Your task to perform on an android device: What's the weather today? Image 0: 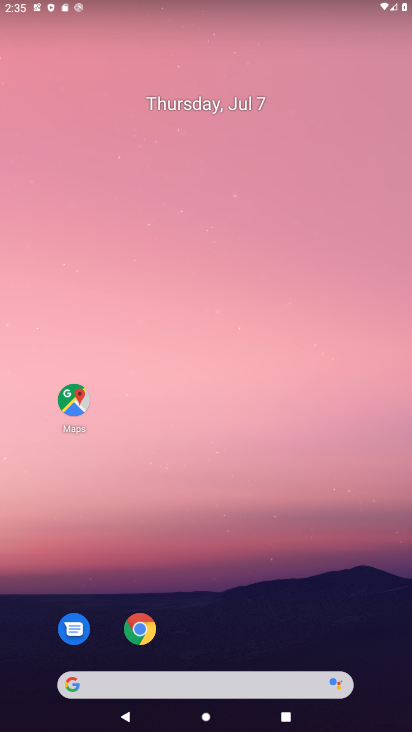
Step 0: click (143, 691)
Your task to perform on an android device: What's the weather today? Image 1: 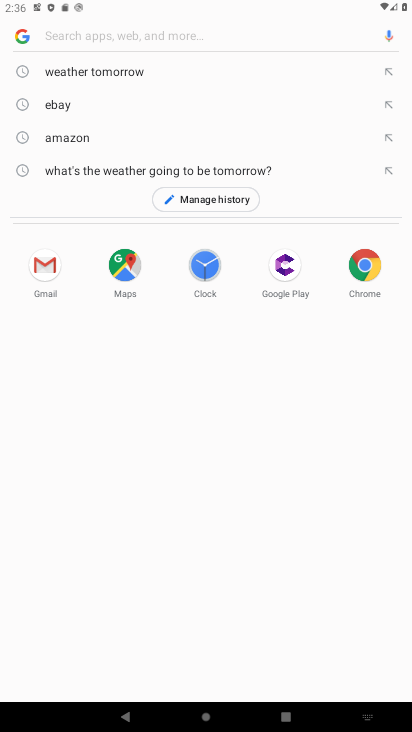
Step 1: click (135, 30)
Your task to perform on an android device: What's the weather today? Image 2: 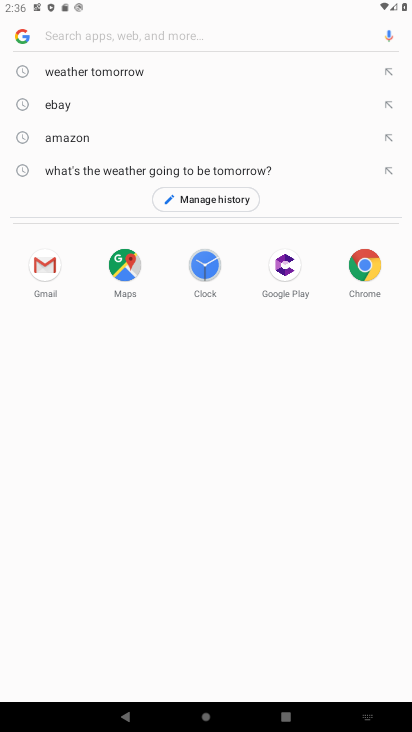
Step 2: type "weather"
Your task to perform on an android device: What's the weather today? Image 3: 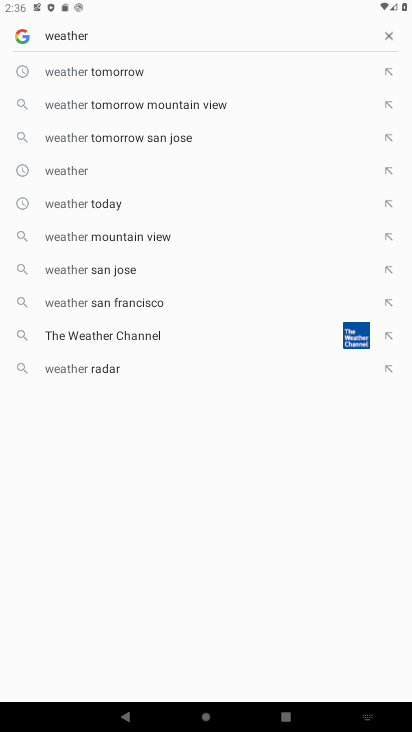
Step 3: click (71, 162)
Your task to perform on an android device: What's the weather today? Image 4: 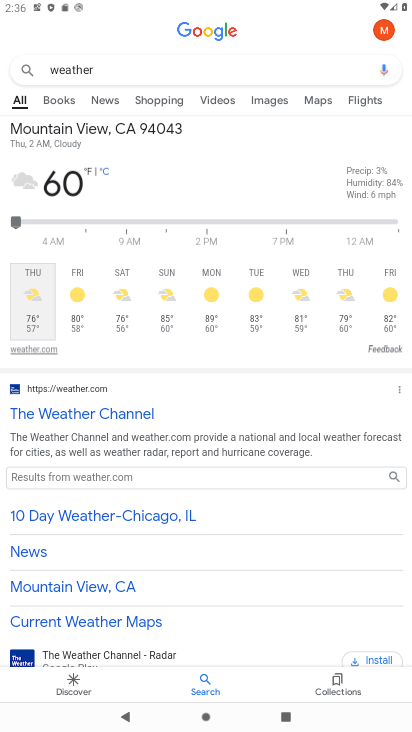
Step 4: task complete